Your task to perform on an android device: turn off location history Image 0: 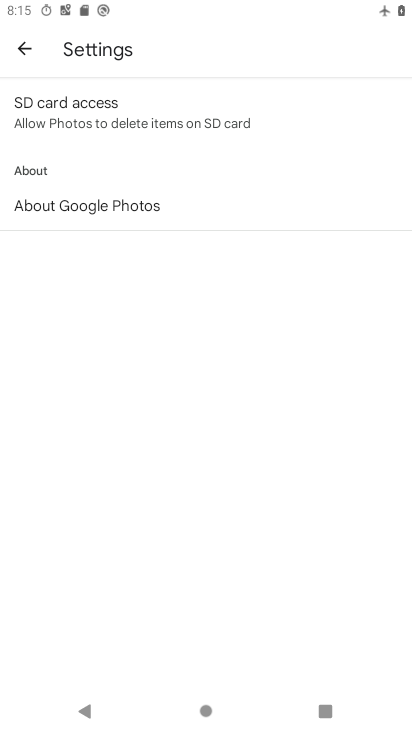
Step 0: click (25, 40)
Your task to perform on an android device: turn off location history Image 1: 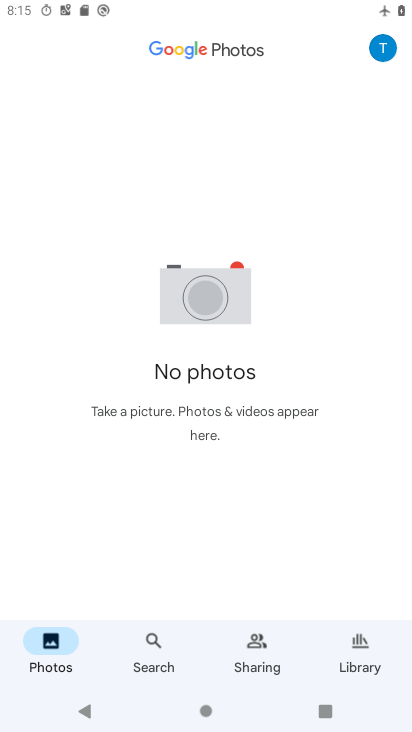
Step 1: press back button
Your task to perform on an android device: turn off location history Image 2: 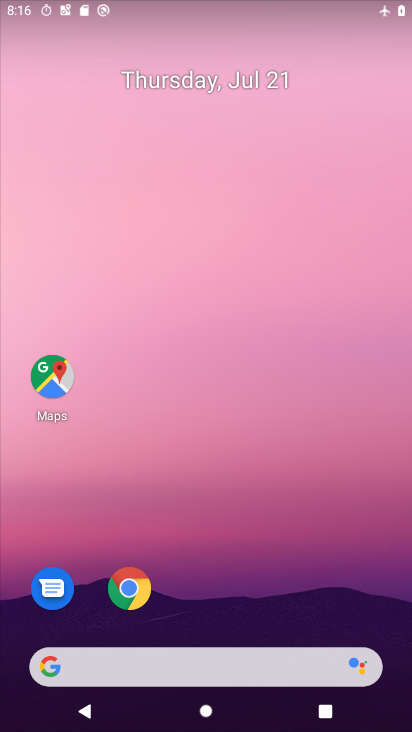
Step 2: drag from (260, 504) to (248, 113)
Your task to perform on an android device: turn off location history Image 3: 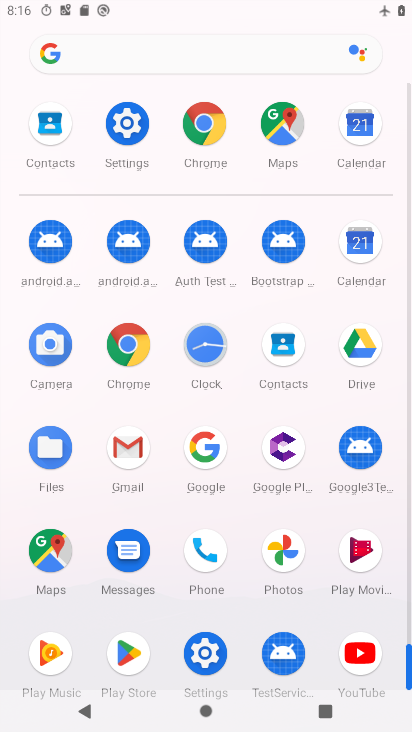
Step 3: click (132, 115)
Your task to perform on an android device: turn off location history Image 4: 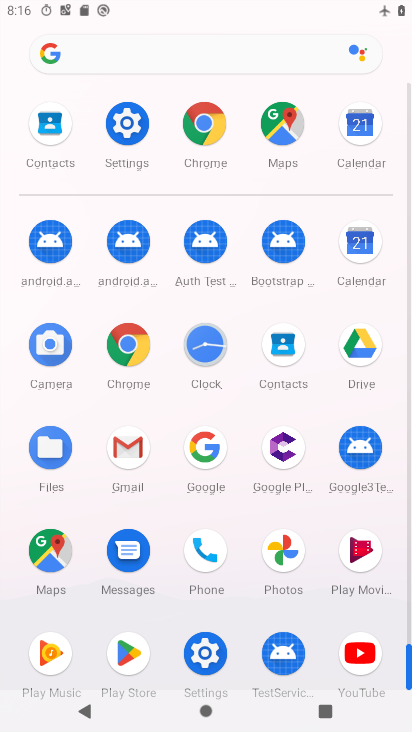
Step 4: click (132, 115)
Your task to perform on an android device: turn off location history Image 5: 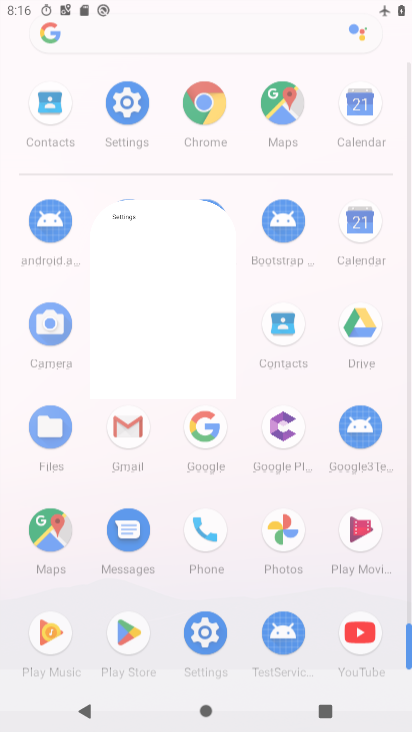
Step 5: click (134, 117)
Your task to perform on an android device: turn off location history Image 6: 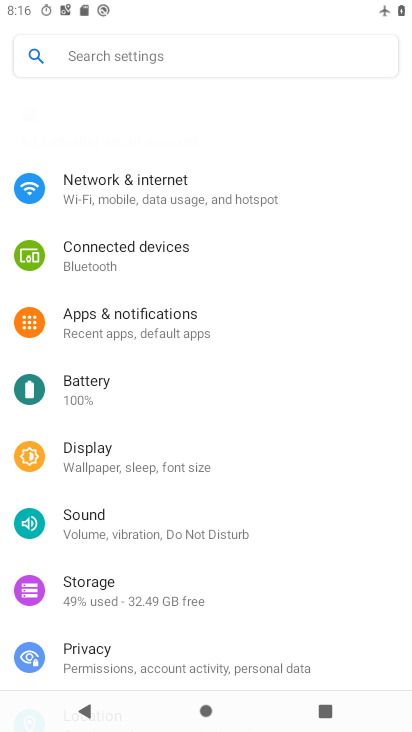
Step 6: click (128, 124)
Your task to perform on an android device: turn off location history Image 7: 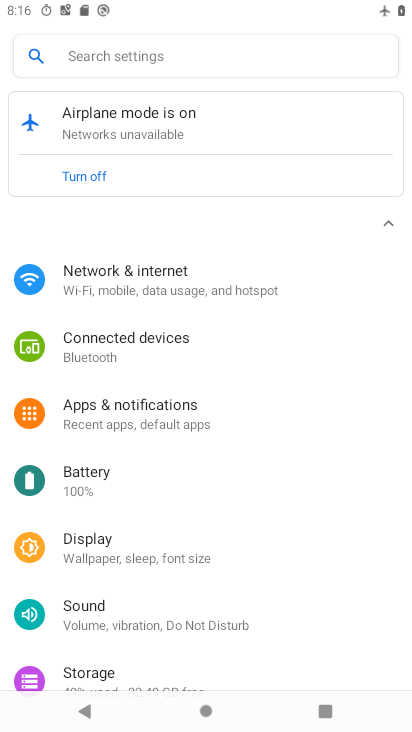
Step 7: click (108, 299)
Your task to perform on an android device: turn off location history Image 8: 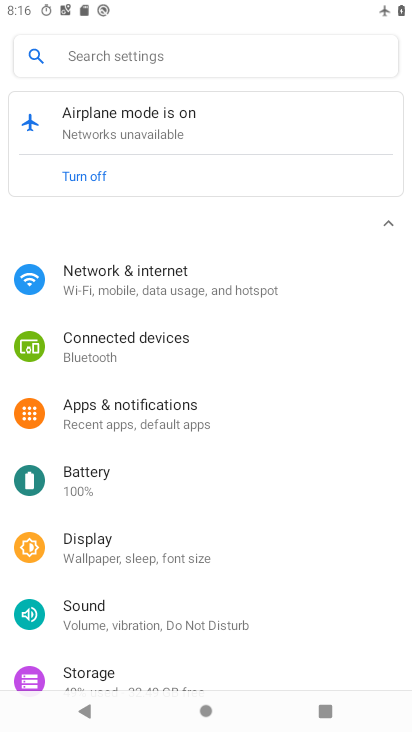
Step 8: drag from (153, 552) to (153, 299)
Your task to perform on an android device: turn off location history Image 9: 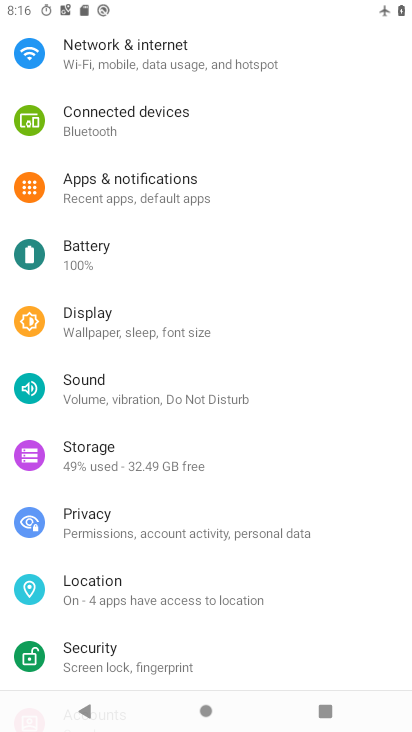
Step 9: drag from (218, 606) to (248, 273)
Your task to perform on an android device: turn off location history Image 10: 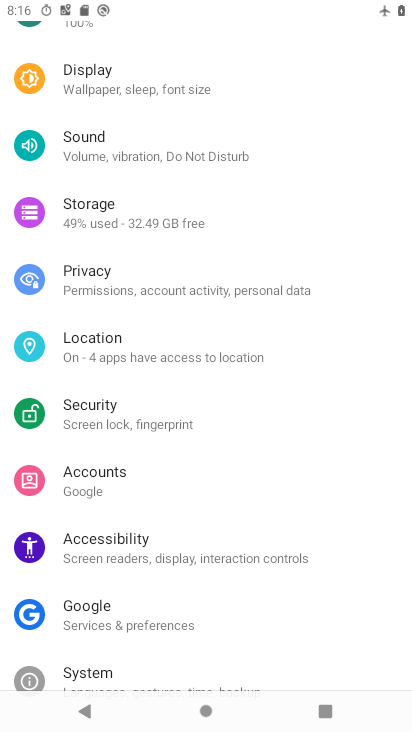
Step 10: click (107, 358)
Your task to perform on an android device: turn off location history Image 11: 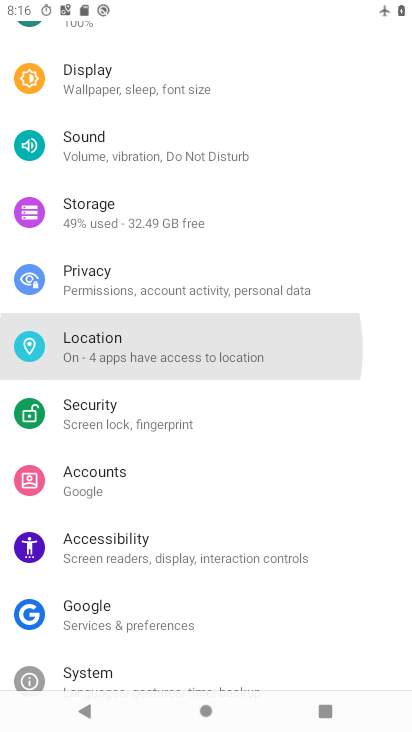
Step 11: click (122, 342)
Your task to perform on an android device: turn off location history Image 12: 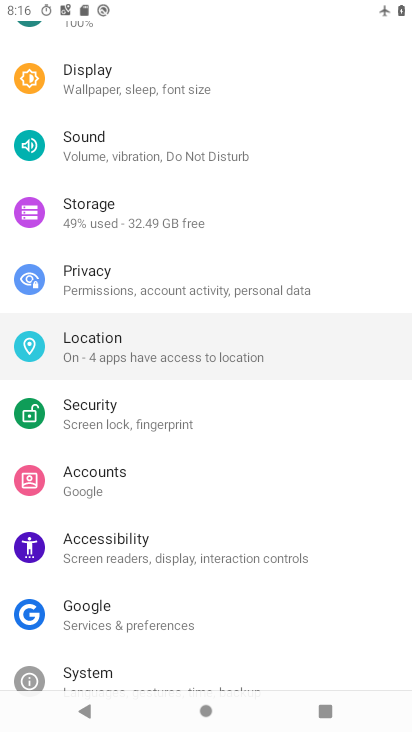
Step 12: click (122, 342)
Your task to perform on an android device: turn off location history Image 13: 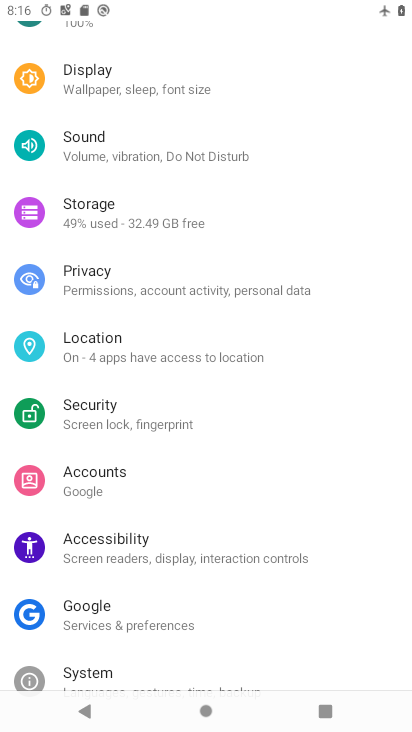
Step 13: click (120, 342)
Your task to perform on an android device: turn off location history Image 14: 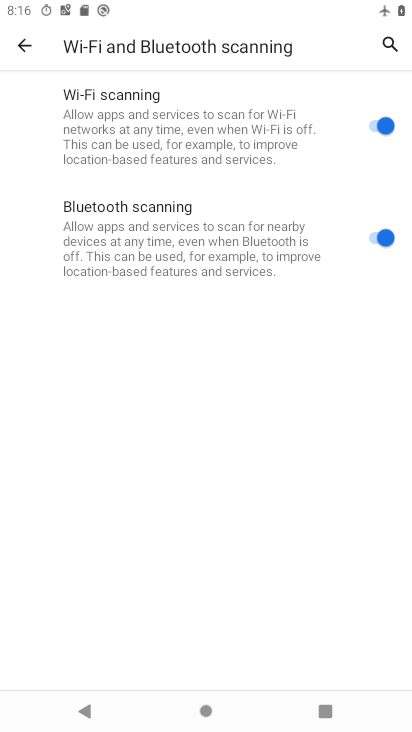
Step 14: click (30, 47)
Your task to perform on an android device: turn off location history Image 15: 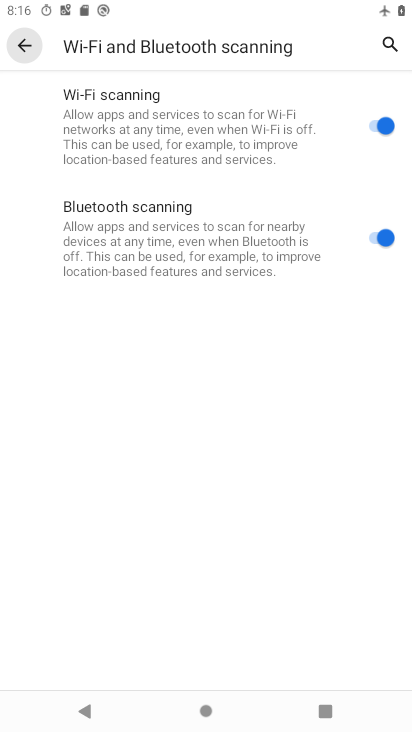
Step 15: click (25, 50)
Your task to perform on an android device: turn off location history Image 16: 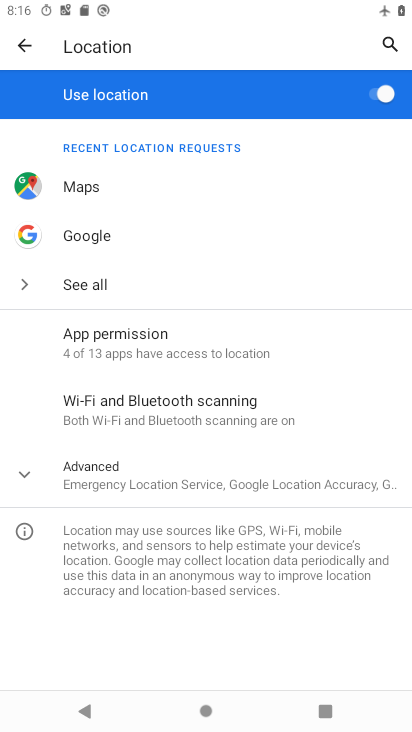
Step 16: click (207, 483)
Your task to perform on an android device: turn off location history Image 17: 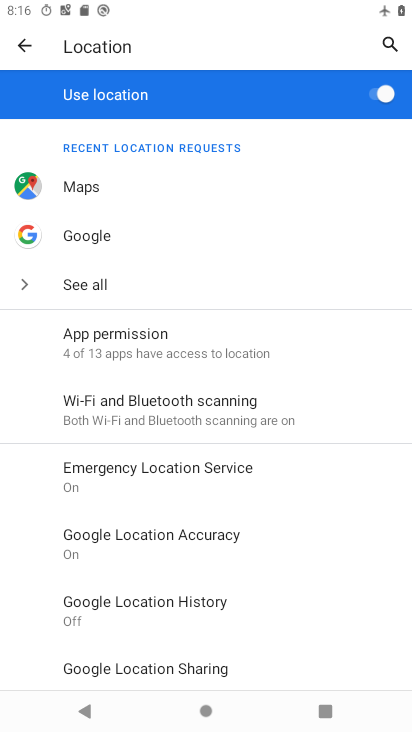
Step 17: click (138, 593)
Your task to perform on an android device: turn off location history Image 18: 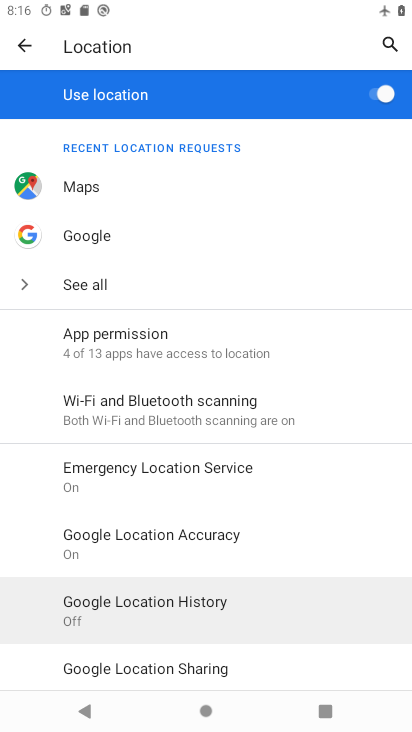
Step 18: click (128, 601)
Your task to perform on an android device: turn off location history Image 19: 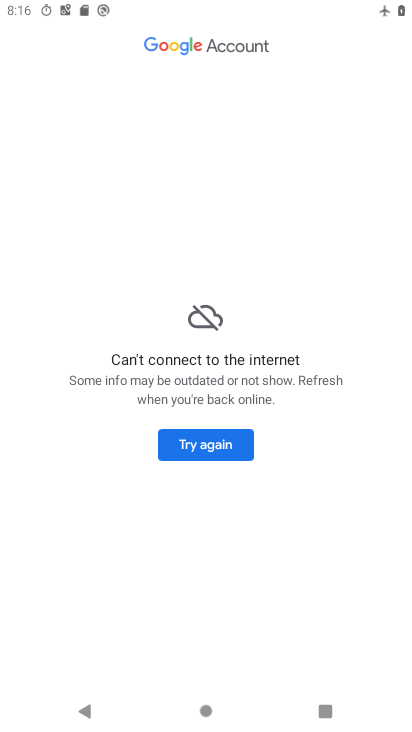
Step 19: task complete